Your task to perform on an android device: turn vacation reply on in the gmail app Image 0: 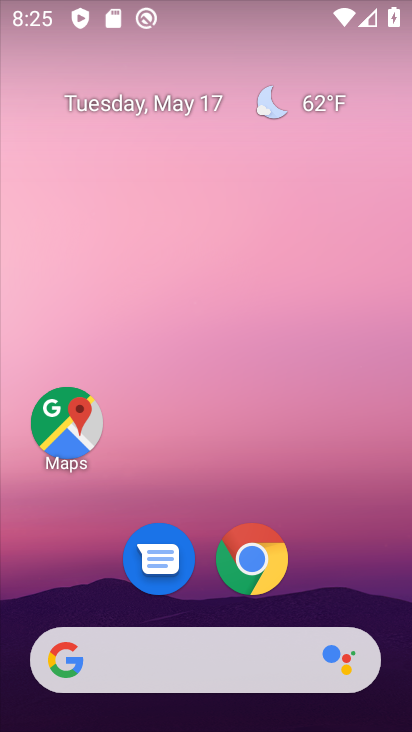
Step 0: drag from (168, 653) to (214, 17)
Your task to perform on an android device: turn vacation reply on in the gmail app Image 1: 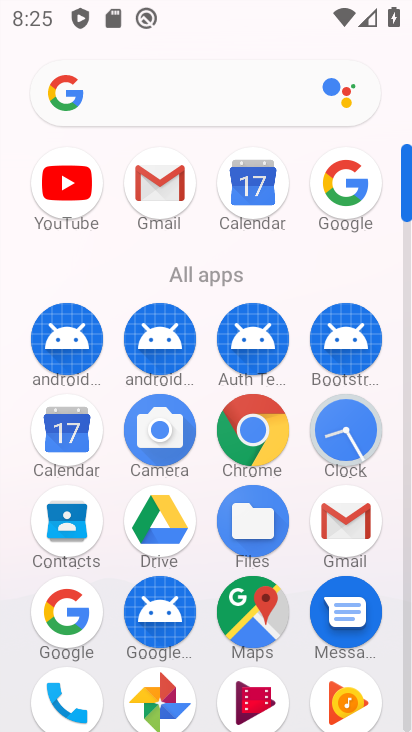
Step 1: click (142, 199)
Your task to perform on an android device: turn vacation reply on in the gmail app Image 2: 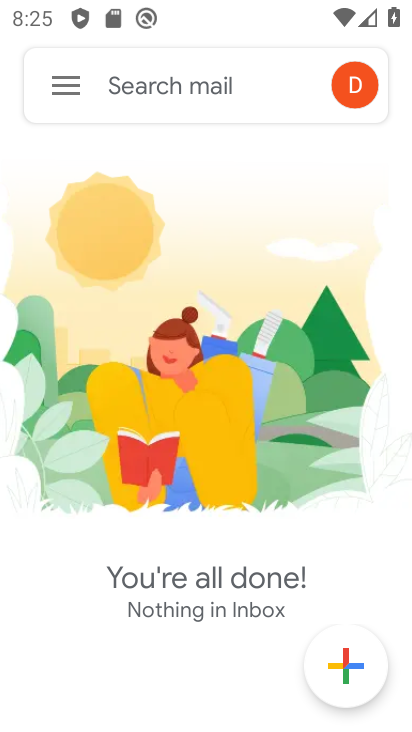
Step 2: click (59, 89)
Your task to perform on an android device: turn vacation reply on in the gmail app Image 3: 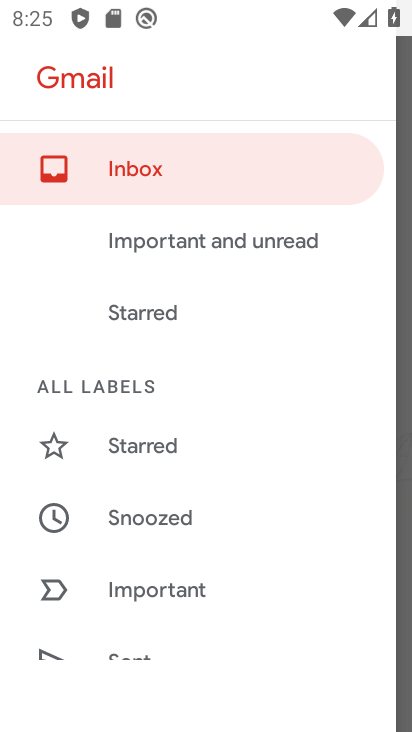
Step 3: drag from (155, 597) to (216, 271)
Your task to perform on an android device: turn vacation reply on in the gmail app Image 4: 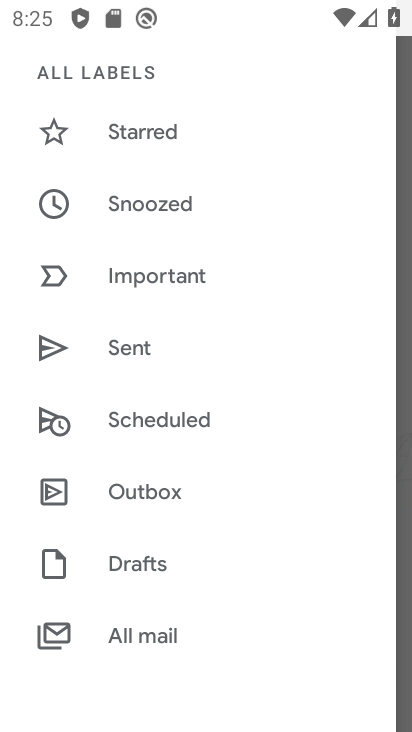
Step 4: drag from (188, 589) to (181, 251)
Your task to perform on an android device: turn vacation reply on in the gmail app Image 5: 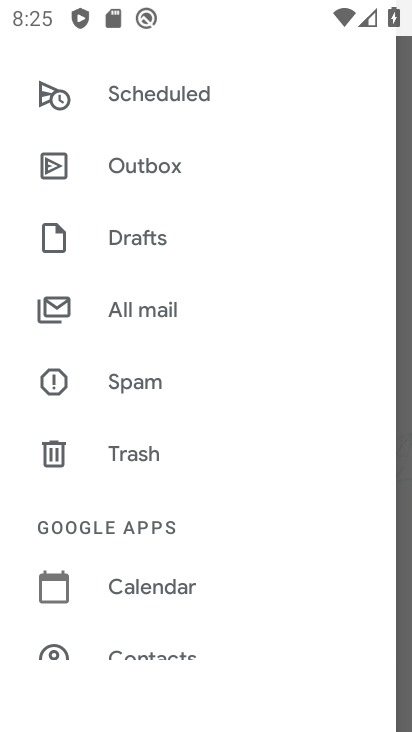
Step 5: drag from (191, 587) to (189, 239)
Your task to perform on an android device: turn vacation reply on in the gmail app Image 6: 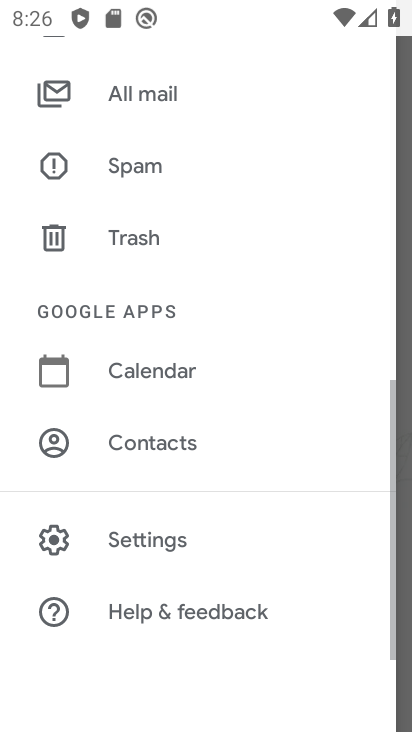
Step 6: click (167, 529)
Your task to perform on an android device: turn vacation reply on in the gmail app Image 7: 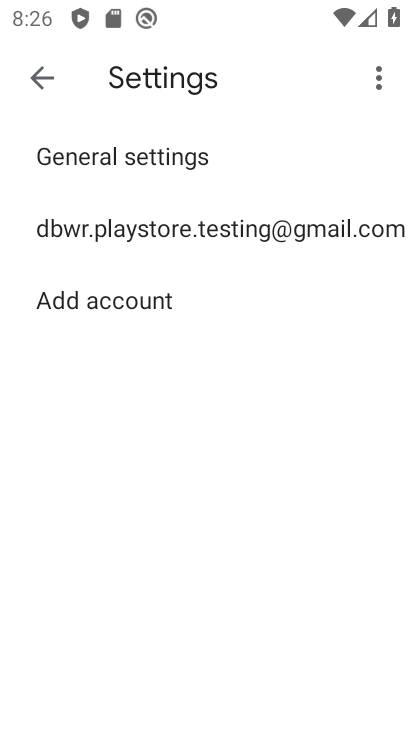
Step 7: click (198, 228)
Your task to perform on an android device: turn vacation reply on in the gmail app Image 8: 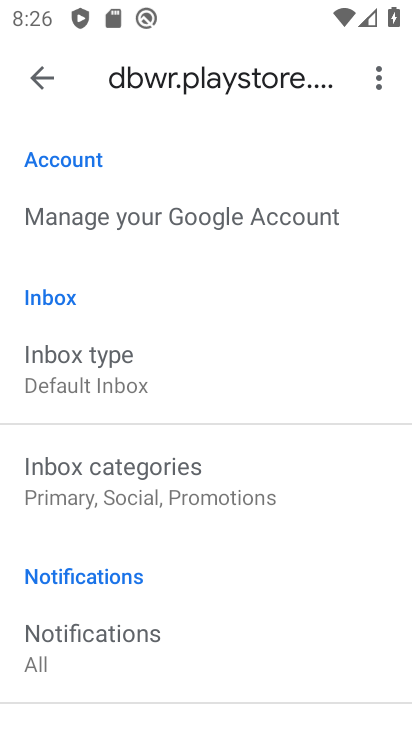
Step 8: drag from (201, 599) to (215, 106)
Your task to perform on an android device: turn vacation reply on in the gmail app Image 9: 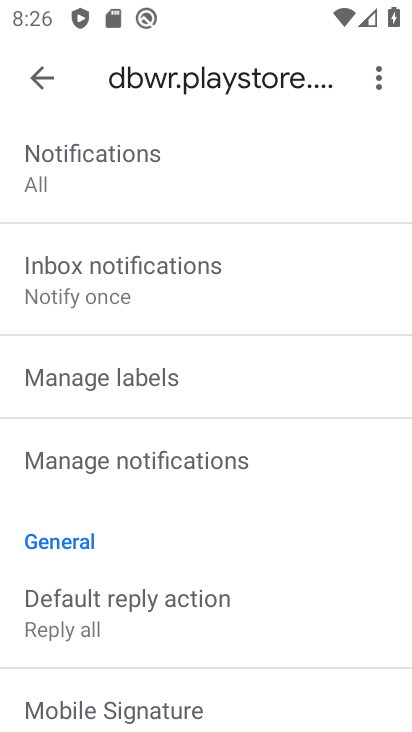
Step 9: drag from (188, 641) to (214, 270)
Your task to perform on an android device: turn vacation reply on in the gmail app Image 10: 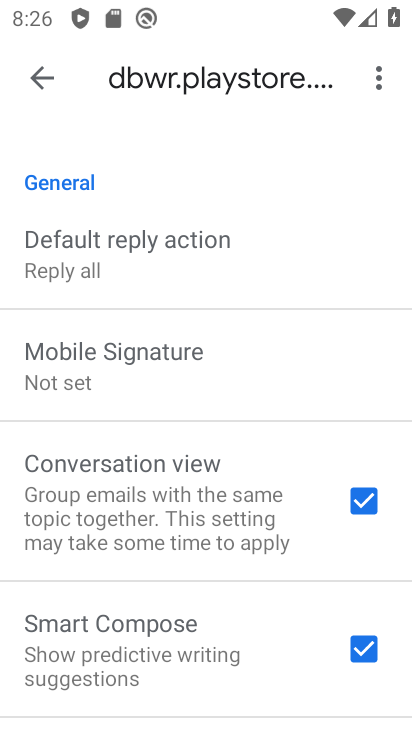
Step 10: drag from (209, 611) to (208, 243)
Your task to perform on an android device: turn vacation reply on in the gmail app Image 11: 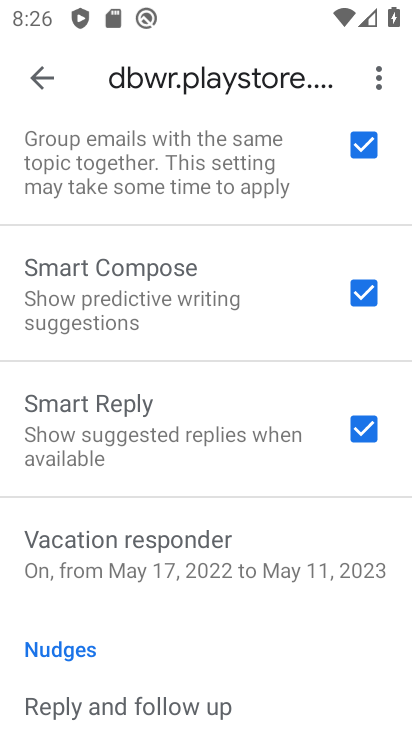
Step 11: click (191, 549)
Your task to perform on an android device: turn vacation reply on in the gmail app Image 12: 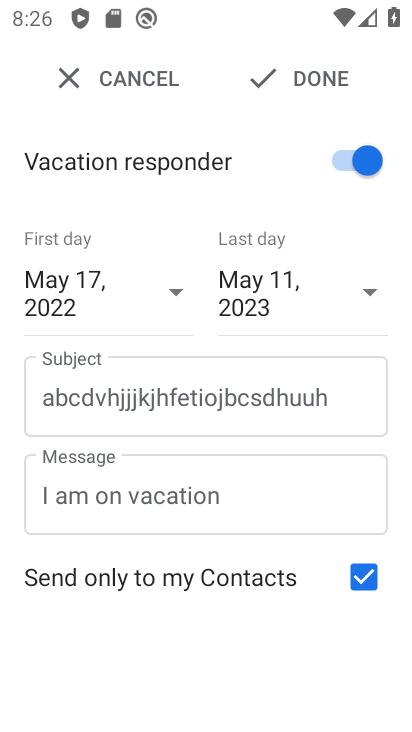
Step 12: click (317, 80)
Your task to perform on an android device: turn vacation reply on in the gmail app Image 13: 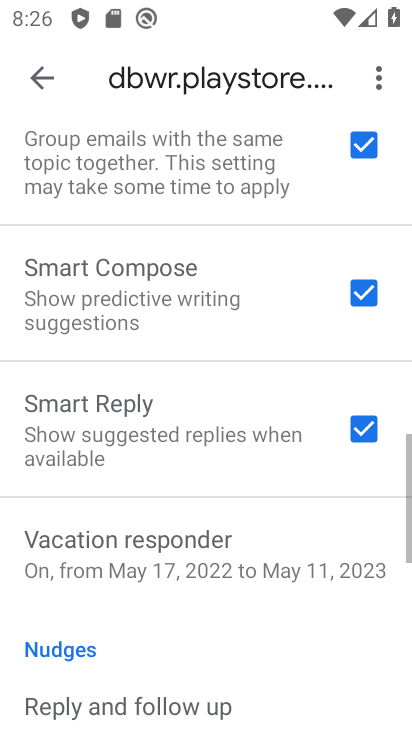
Step 13: task complete